Your task to perform on an android device: turn notification dots off Image 0: 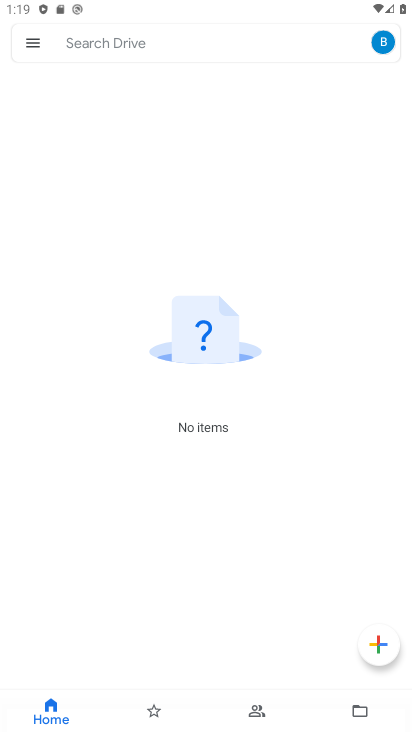
Step 0: press home button
Your task to perform on an android device: turn notification dots off Image 1: 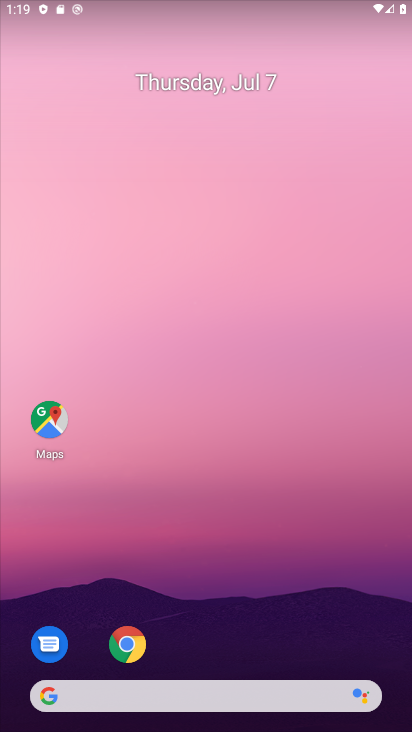
Step 1: drag from (244, 644) to (199, 191)
Your task to perform on an android device: turn notification dots off Image 2: 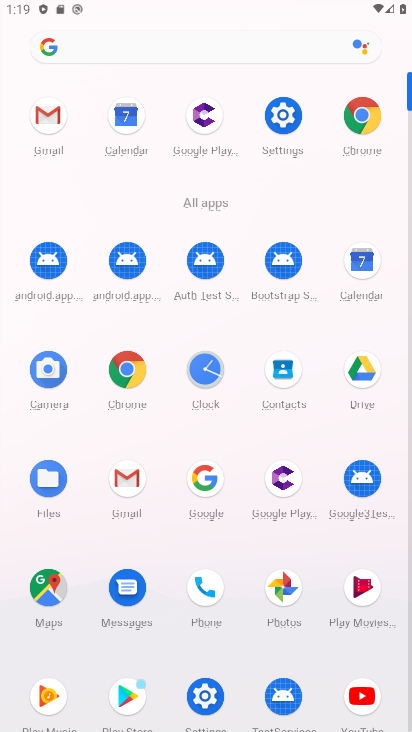
Step 2: click (284, 114)
Your task to perform on an android device: turn notification dots off Image 3: 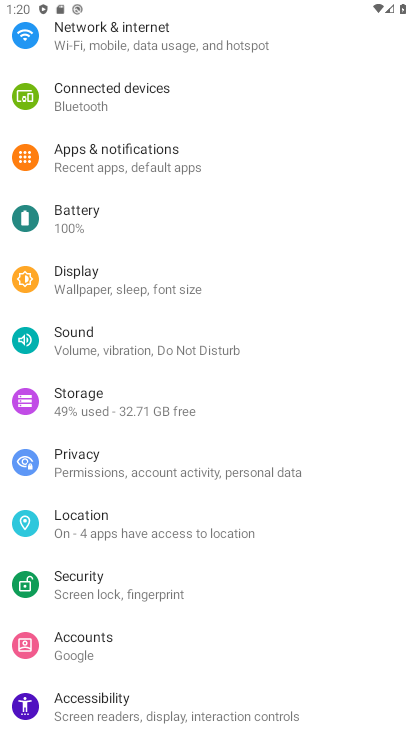
Step 3: click (113, 165)
Your task to perform on an android device: turn notification dots off Image 4: 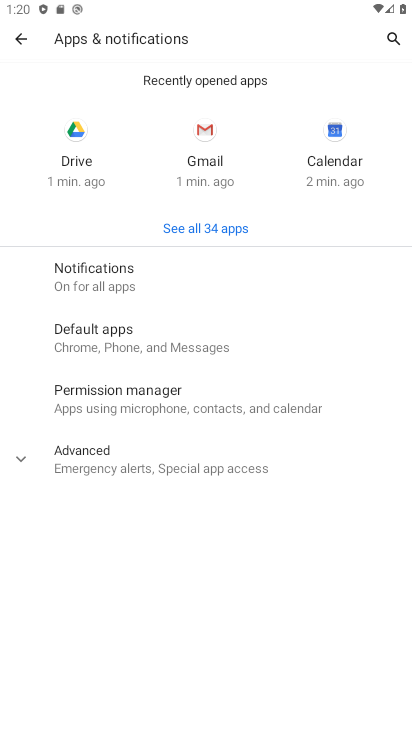
Step 4: click (116, 281)
Your task to perform on an android device: turn notification dots off Image 5: 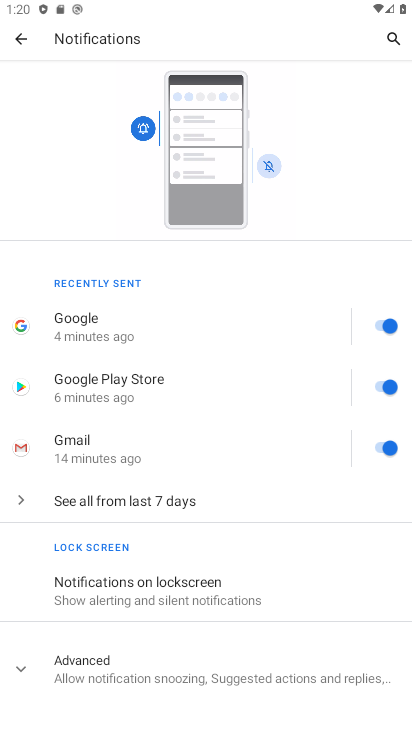
Step 5: click (183, 678)
Your task to perform on an android device: turn notification dots off Image 6: 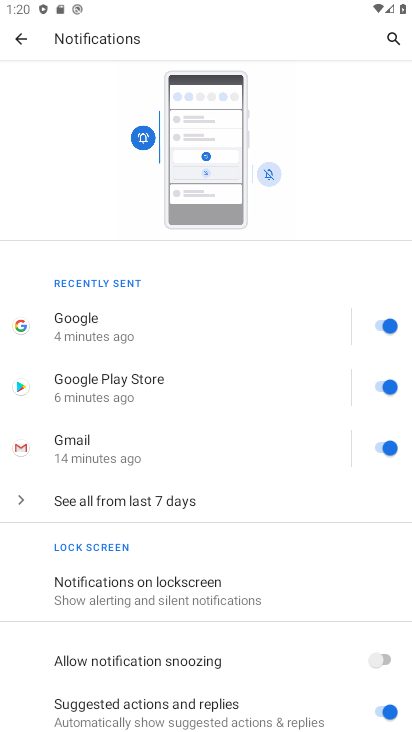
Step 6: drag from (171, 628) to (237, 421)
Your task to perform on an android device: turn notification dots off Image 7: 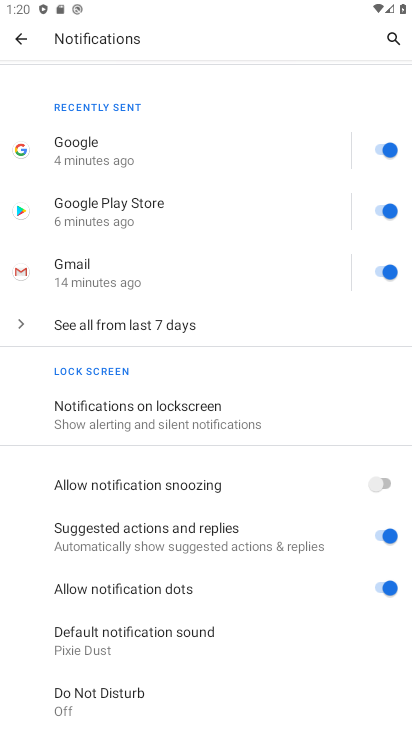
Step 7: click (383, 592)
Your task to perform on an android device: turn notification dots off Image 8: 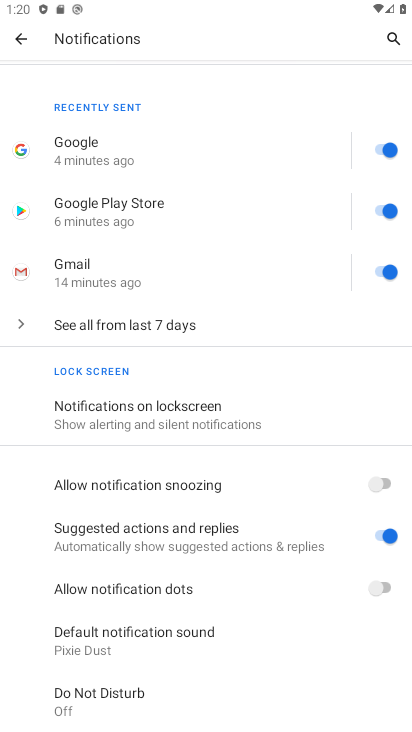
Step 8: task complete